Your task to perform on an android device: Do I have any events today? Image 0: 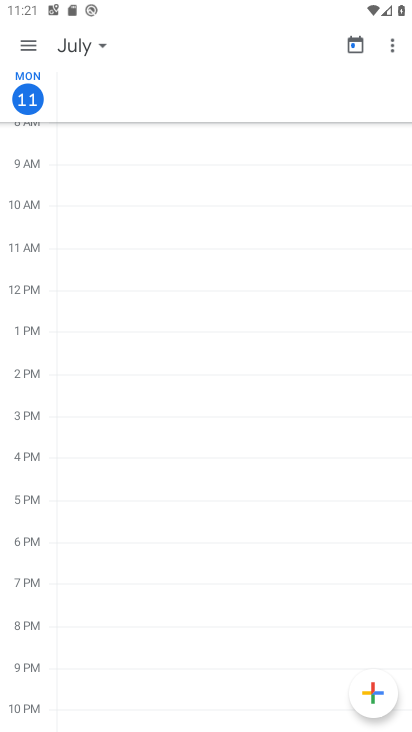
Step 0: press home button
Your task to perform on an android device: Do I have any events today? Image 1: 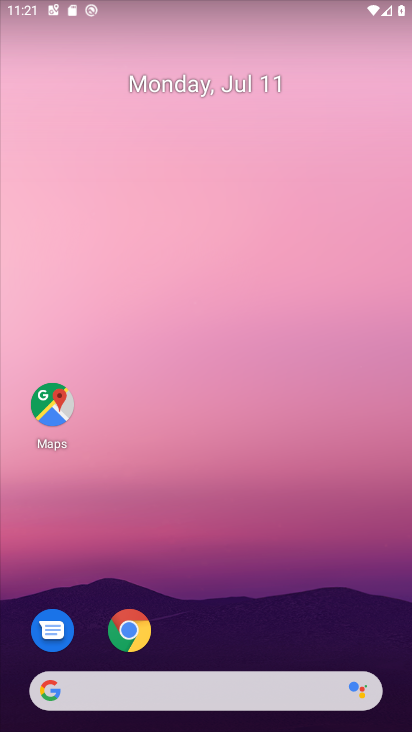
Step 1: drag from (220, 607) to (277, 11)
Your task to perform on an android device: Do I have any events today? Image 2: 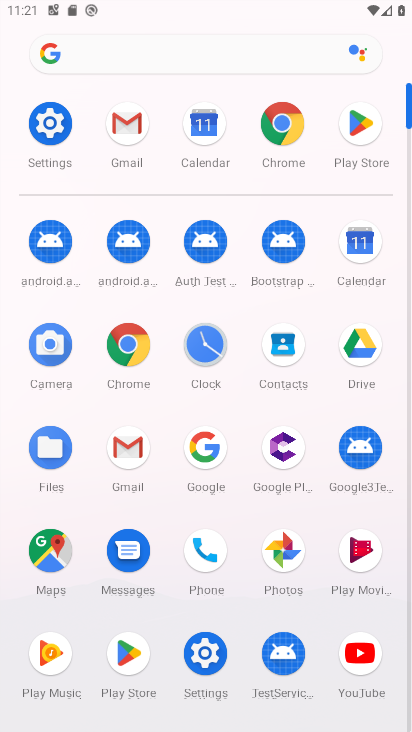
Step 2: click (358, 245)
Your task to perform on an android device: Do I have any events today? Image 3: 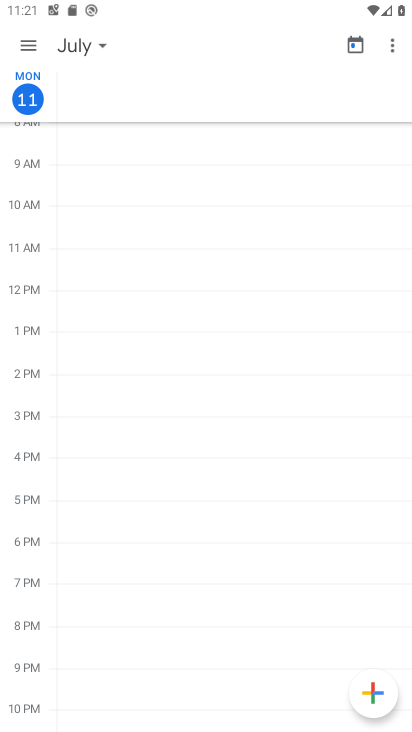
Step 3: click (14, 33)
Your task to perform on an android device: Do I have any events today? Image 4: 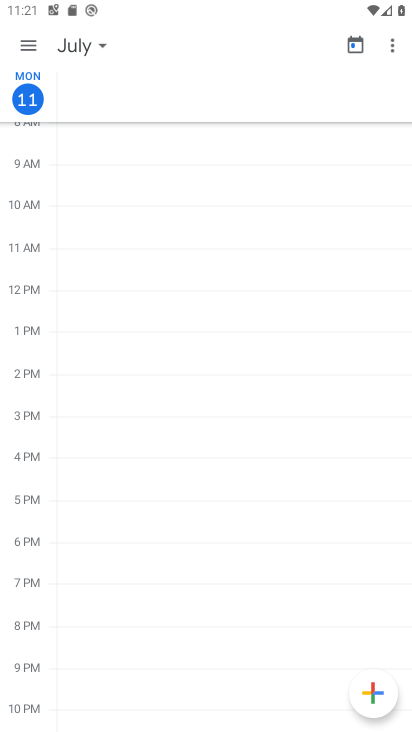
Step 4: click (31, 49)
Your task to perform on an android device: Do I have any events today? Image 5: 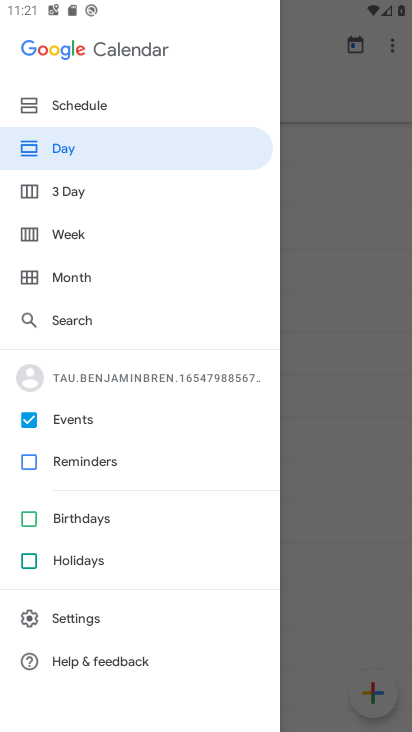
Step 5: task complete